Your task to perform on an android device: Search for sushi restaurants on Maps Image 0: 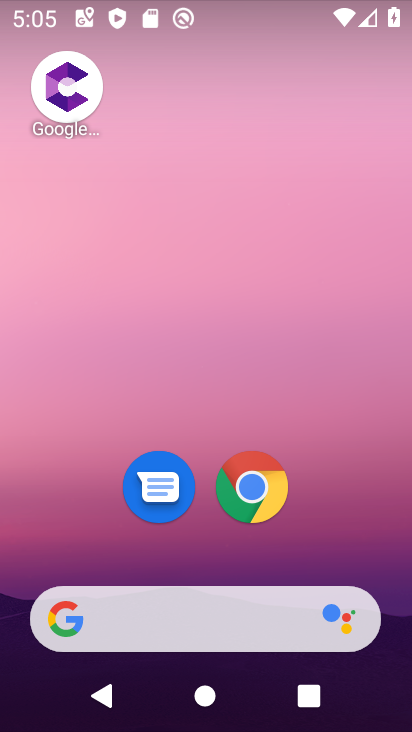
Step 0: drag from (356, 568) to (298, 178)
Your task to perform on an android device: Search for sushi restaurants on Maps Image 1: 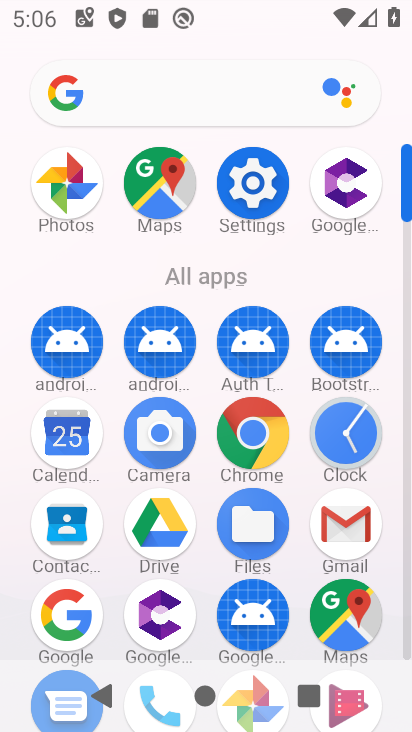
Step 1: click (362, 624)
Your task to perform on an android device: Search for sushi restaurants on Maps Image 2: 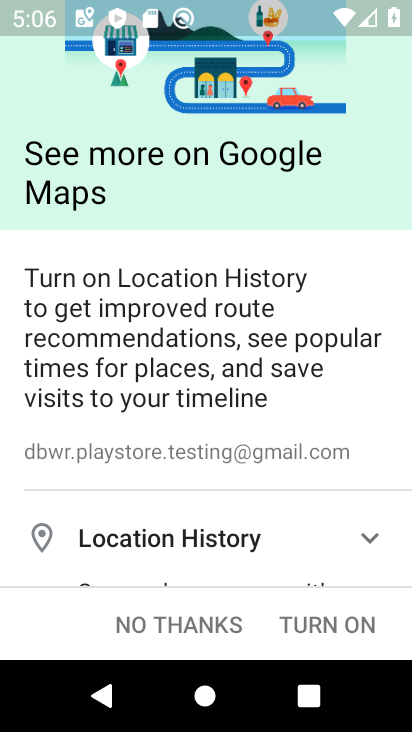
Step 2: click (160, 629)
Your task to perform on an android device: Search for sushi restaurants on Maps Image 3: 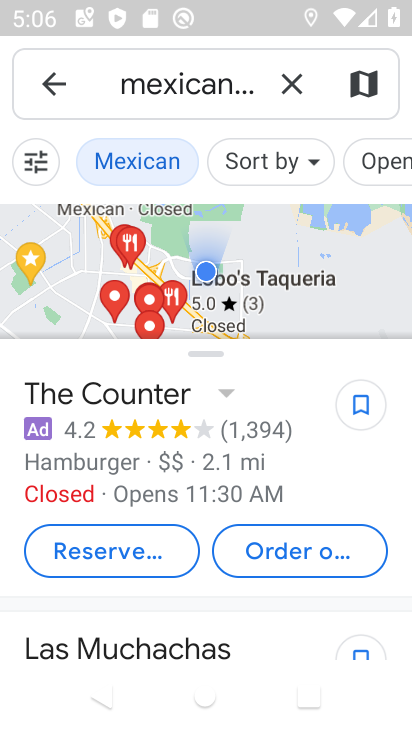
Step 3: click (292, 98)
Your task to perform on an android device: Search for sushi restaurants on Maps Image 4: 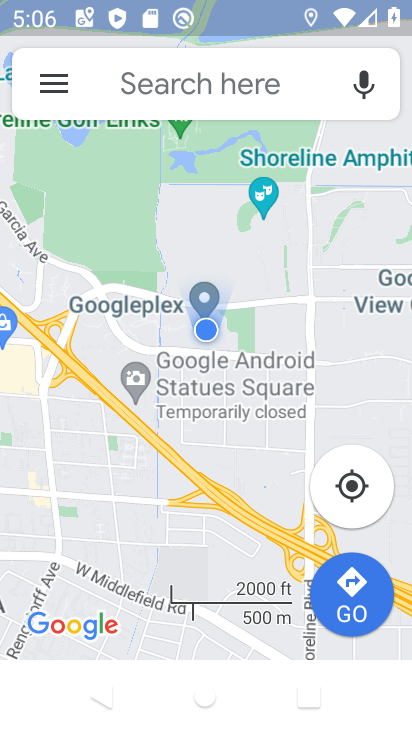
Step 4: click (219, 83)
Your task to perform on an android device: Search for sushi restaurants on Maps Image 5: 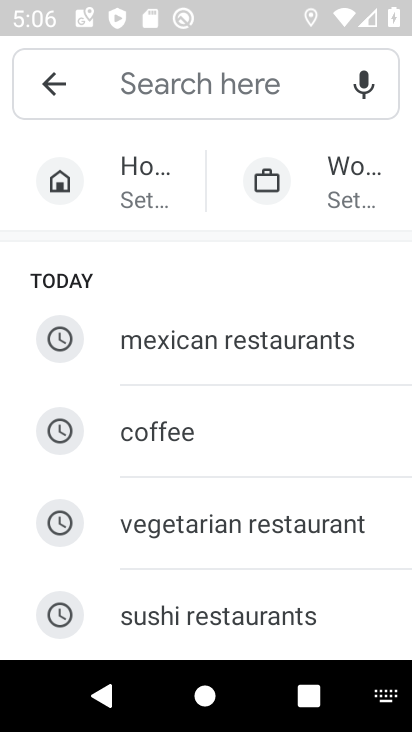
Step 5: click (234, 641)
Your task to perform on an android device: Search for sushi restaurants on Maps Image 6: 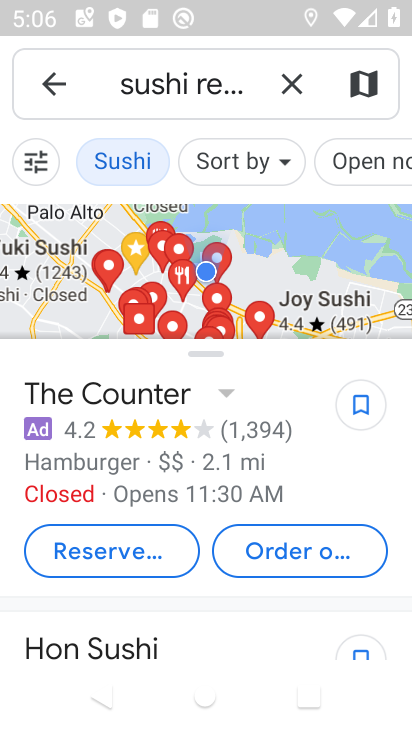
Step 6: task complete